Your task to perform on an android device: Open network settings Image 0: 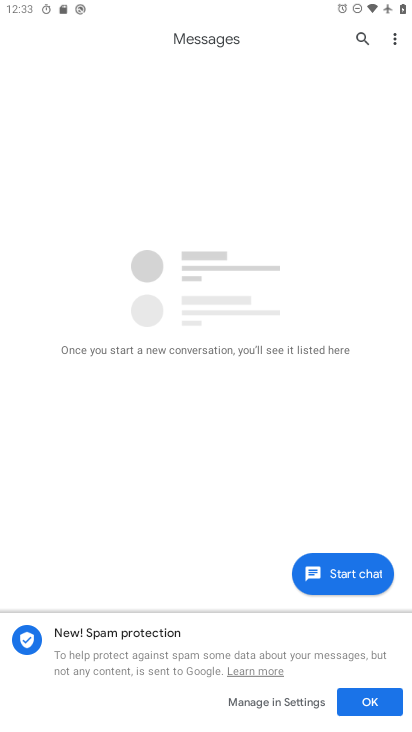
Step 0: press home button
Your task to perform on an android device: Open network settings Image 1: 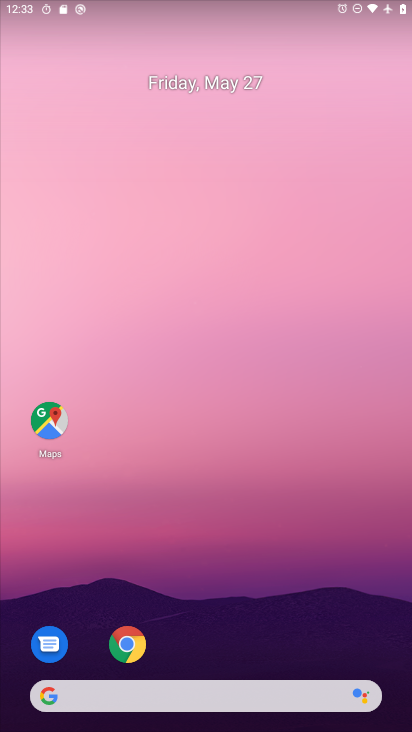
Step 1: drag from (218, 605) to (219, 188)
Your task to perform on an android device: Open network settings Image 2: 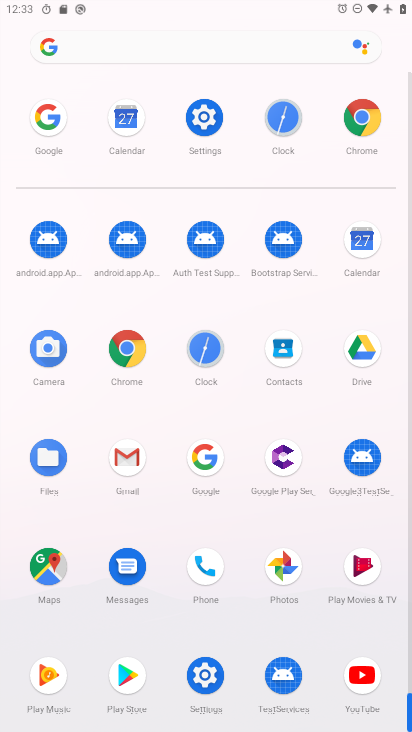
Step 2: click (220, 132)
Your task to perform on an android device: Open network settings Image 3: 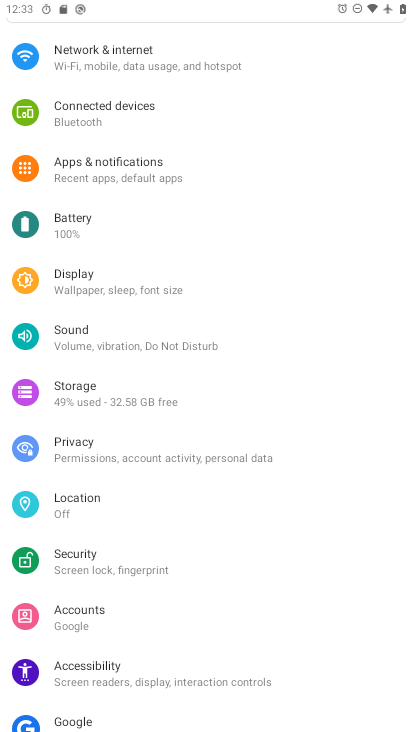
Step 3: drag from (220, 132) to (220, 436)
Your task to perform on an android device: Open network settings Image 4: 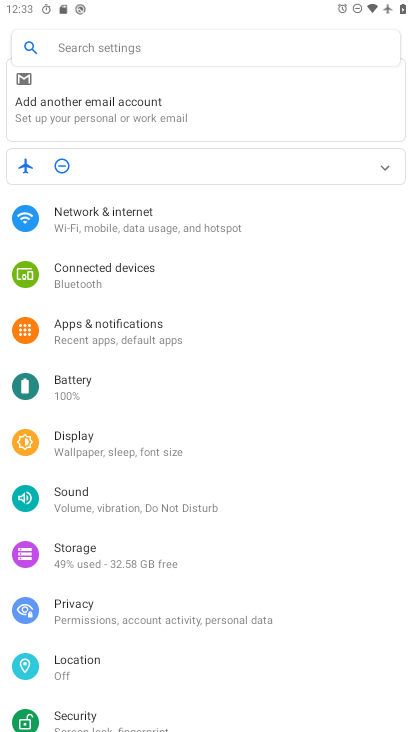
Step 4: click (151, 227)
Your task to perform on an android device: Open network settings Image 5: 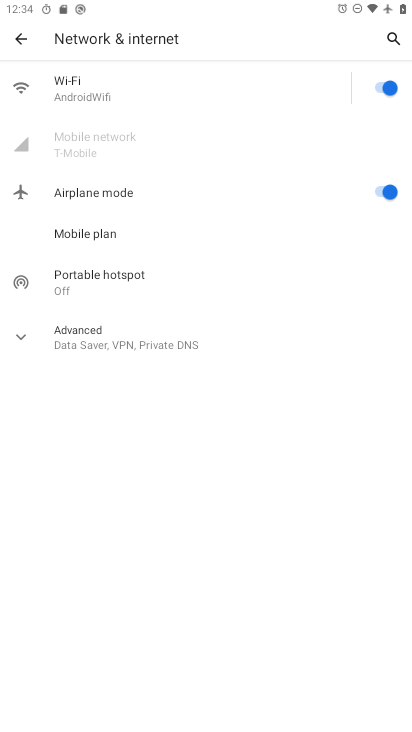
Step 5: task complete